Your task to perform on an android device: see sites visited before in the chrome app Image 0: 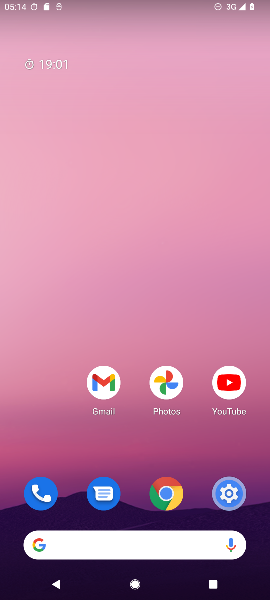
Step 0: press home button
Your task to perform on an android device: see sites visited before in the chrome app Image 1: 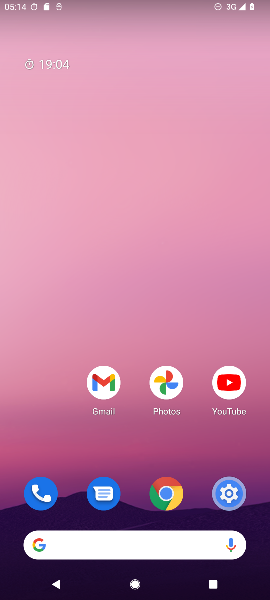
Step 1: drag from (58, 455) to (57, 138)
Your task to perform on an android device: see sites visited before in the chrome app Image 2: 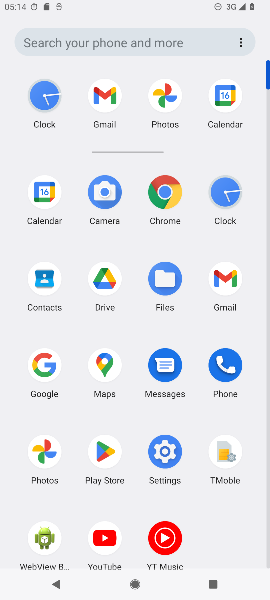
Step 2: click (171, 191)
Your task to perform on an android device: see sites visited before in the chrome app Image 3: 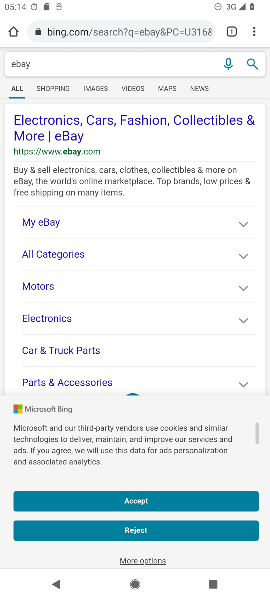
Step 3: click (251, 33)
Your task to perform on an android device: see sites visited before in the chrome app Image 4: 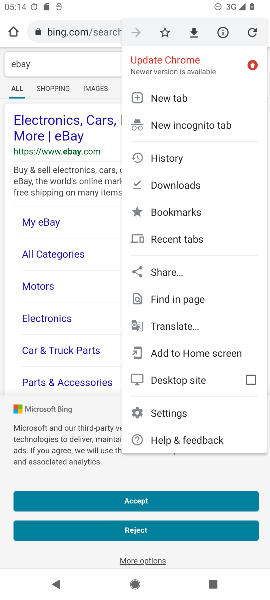
Step 4: click (177, 158)
Your task to perform on an android device: see sites visited before in the chrome app Image 5: 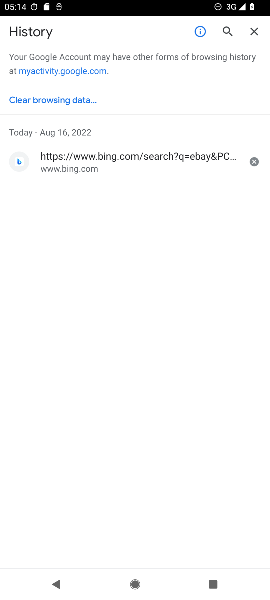
Step 5: task complete